Your task to perform on an android device: set the stopwatch Image 0: 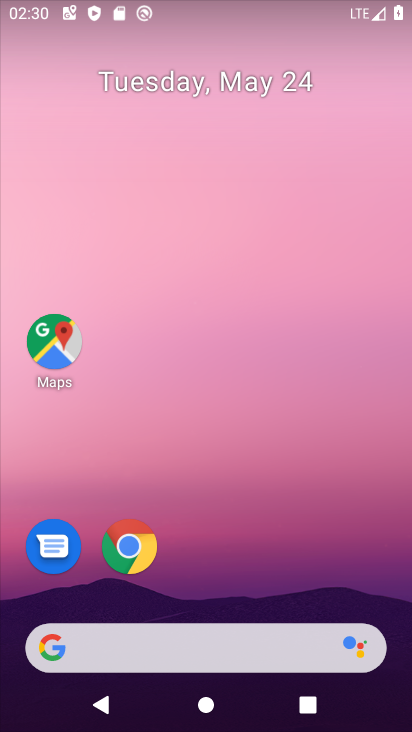
Step 0: drag from (179, 568) to (261, 136)
Your task to perform on an android device: set the stopwatch Image 1: 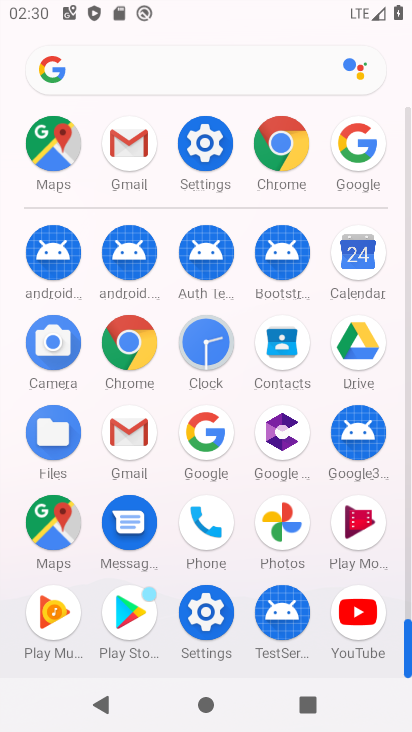
Step 1: click (199, 340)
Your task to perform on an android device: set the stopwatch Image 2: 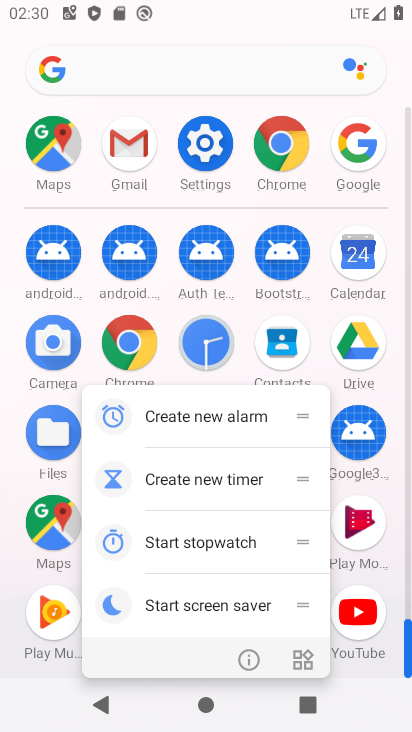
Step 2: click (253, 649)
Your task to perform on an android device: set the stopwatch Image 3: 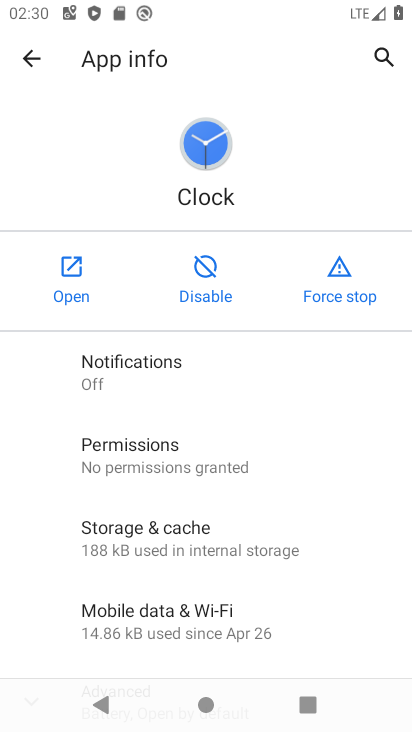
Step 3: click (69, 260)
Your task to perform on an android device: set the stopwatch Image 4: 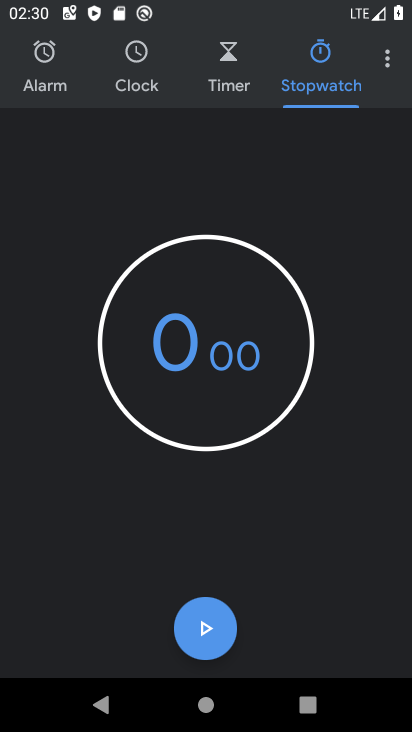
Step 4: click (199, 571)
Your task to perform on an android device: set the stopwatch Image 5: 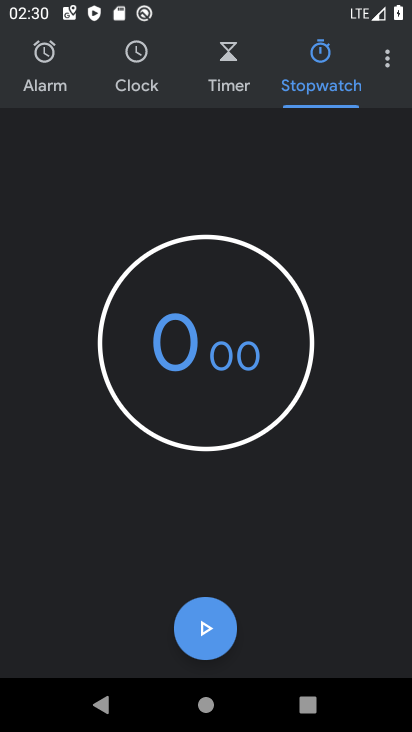
Step 5: click (215, 619)
Your task to perform on an android device: set the stopwatch Image 6: 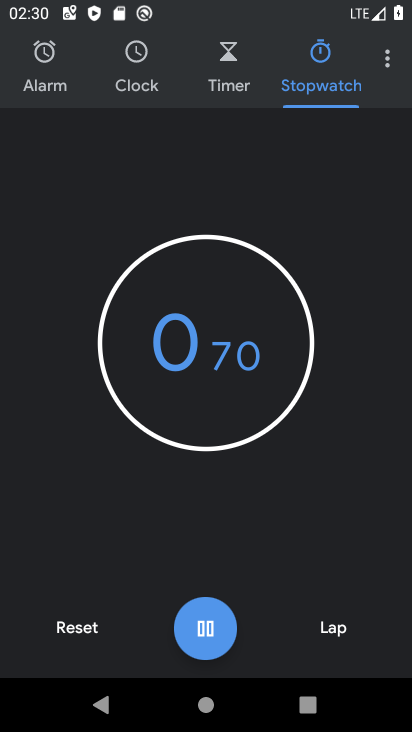
Step 6: task complete